Your task to perform on an android device: What's the weather today? Image 0: 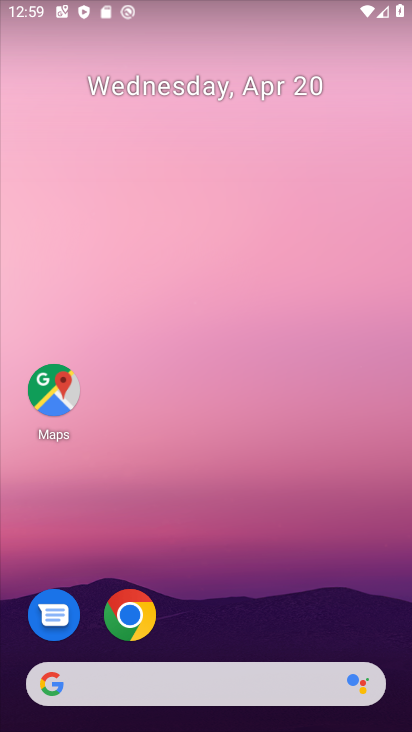
Step 0: drag from (0, 216) to (403, 218)
Your task to perform on an android device: What's the weather today? Image 1: 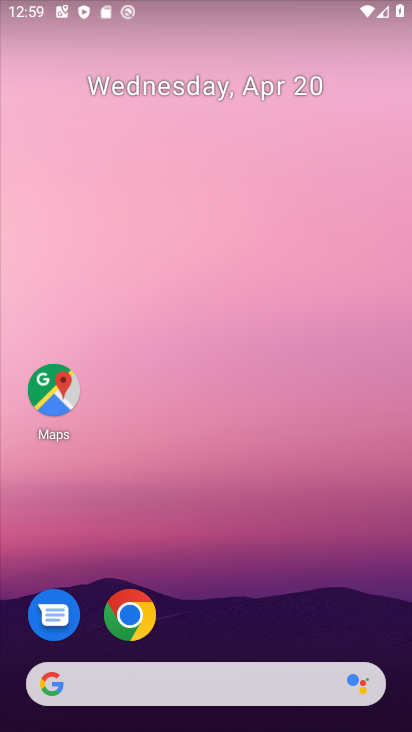
Step 1: task complete